Your task to perform on an android device: stop showing notifications on the lock screen Image 0: 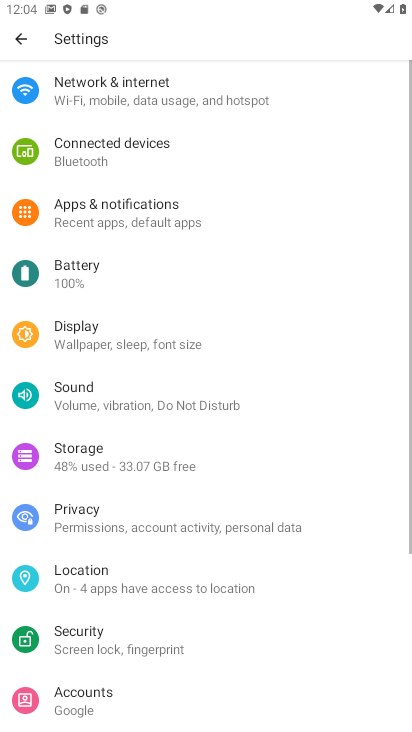
Step 0: drag from (193, 666) to (153, 506)
Your task to perform on an android device: stop showing notifications on the lock screen Image 1: 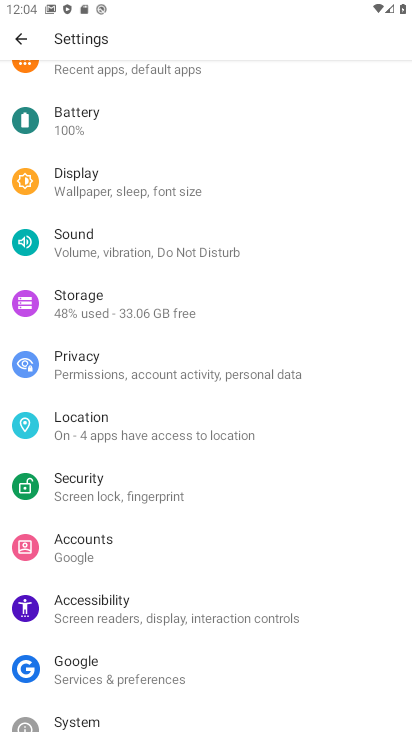
Step 1: drag from (202, 91) to (206, 405)
Your task to perform on an android device: stop showing notifications on the lock screen Image 2: 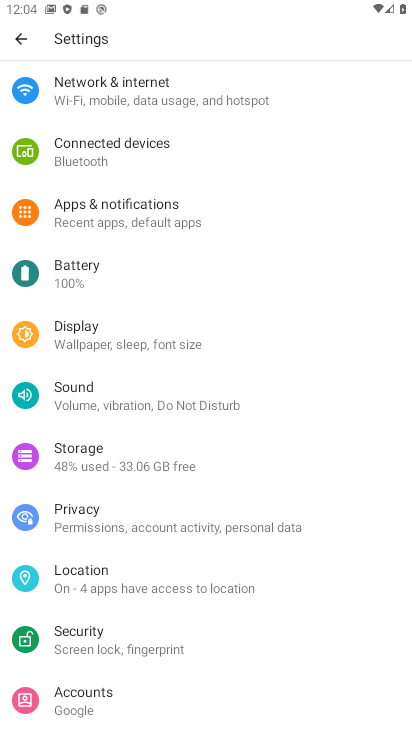
Step 2: click (130, 216)
Your task to perform on an android device: stop showing notifications on the lock screen Image 3: 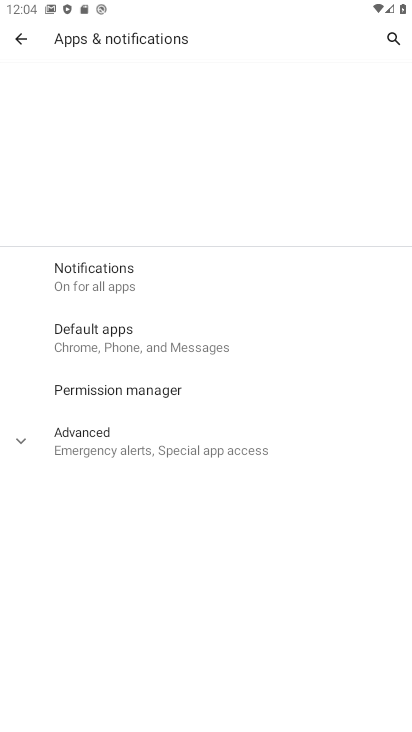
Step 3: click (110, 261)
Your task to perform on an android device: stop showing notifications on the lock screen Image 4: 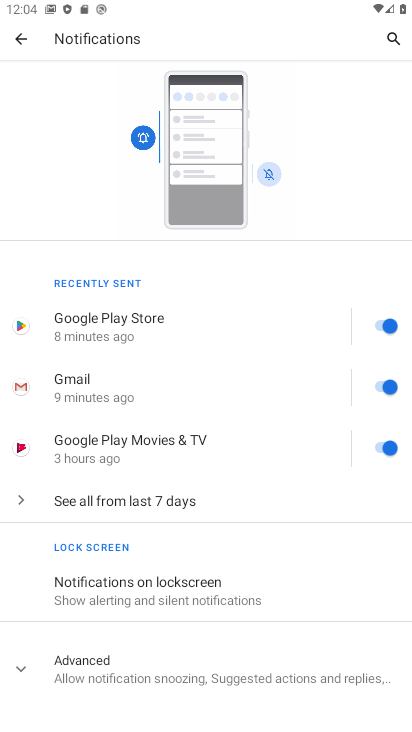
Step 4: click (182, 623)
Your task to perform on an android device: stop showing notifications on the lock screen Image 5: 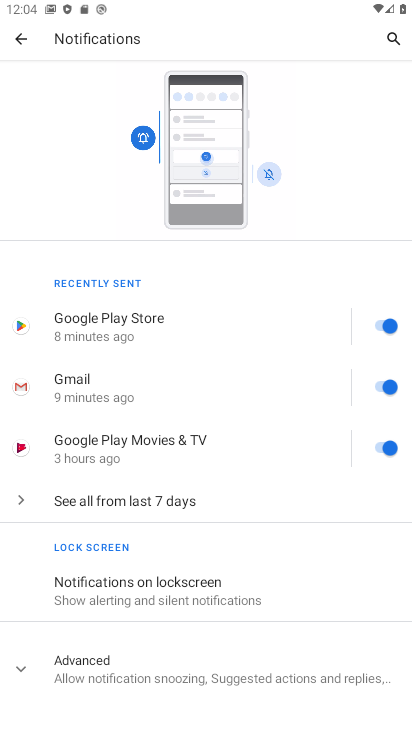
Step 5: click (164, 608)
Your task to perform on an android device: stop showing notifications on the lock screen Image 6: 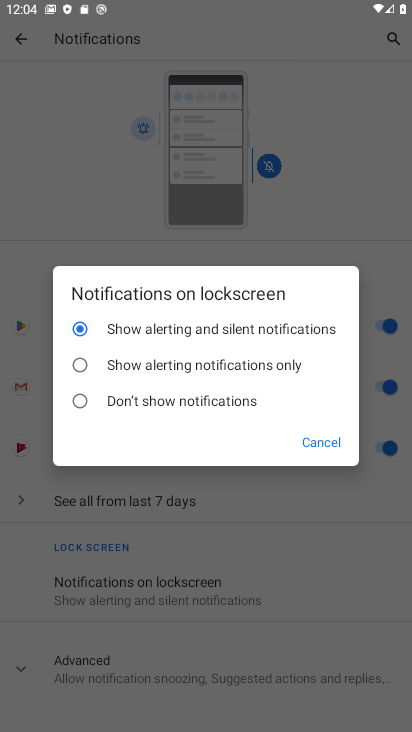
Step 6: click (106, 393)
Your task to perform on an android device: stop showing notifications on the lock screen Image 7: 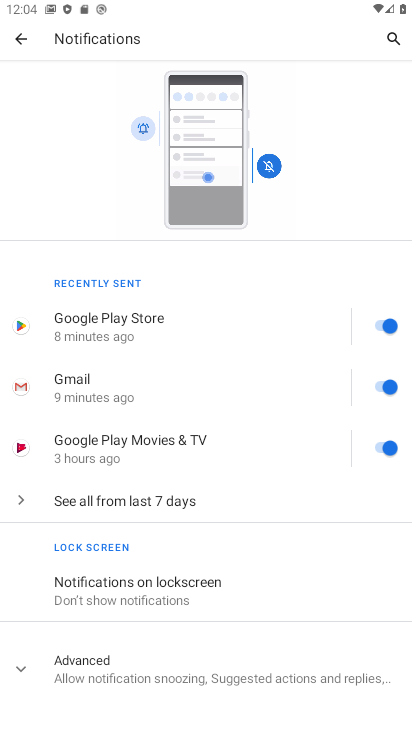
Step 7: task complete